Your task to perform on an android device: What's on my calendar today? Image 0: 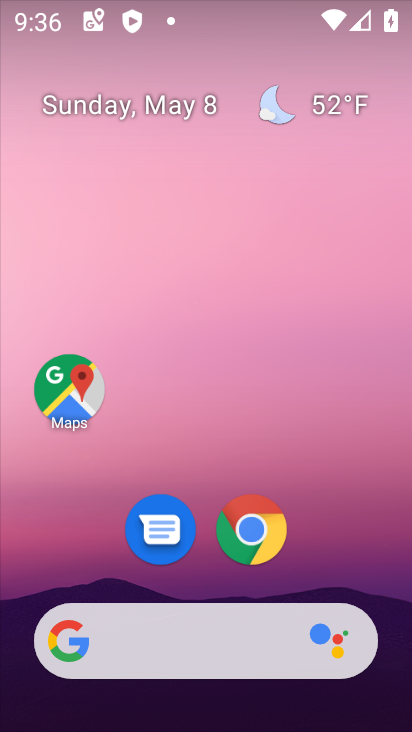
Step 0: drag from (340, 556) to (411, 119)
Your task to perform on an android device: What's on my calendar today? Image 1: 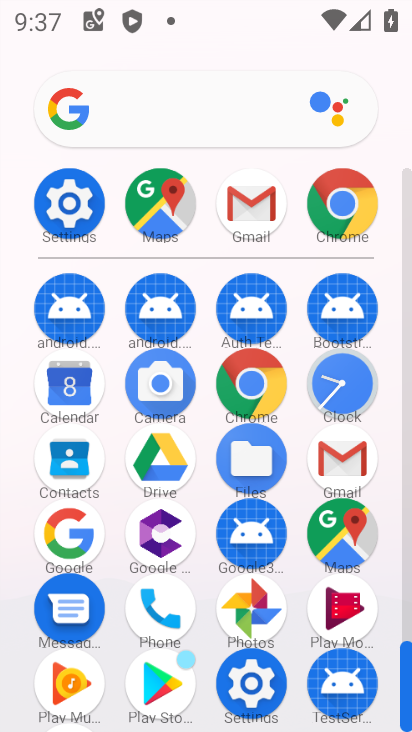
Step 1: drag from (197, 668) to (212, 383)
Your task to perform on an android device: What's on my calendar today? Image 2: 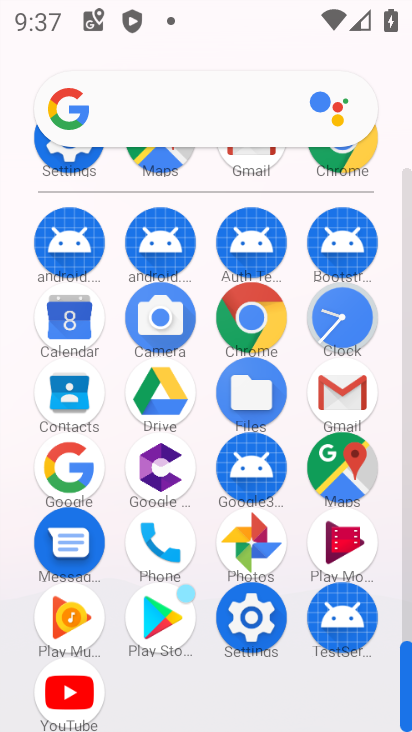
Step 2: click (33, 308)
Your task to perform on an android device: What's on my calendar today? Image 3: 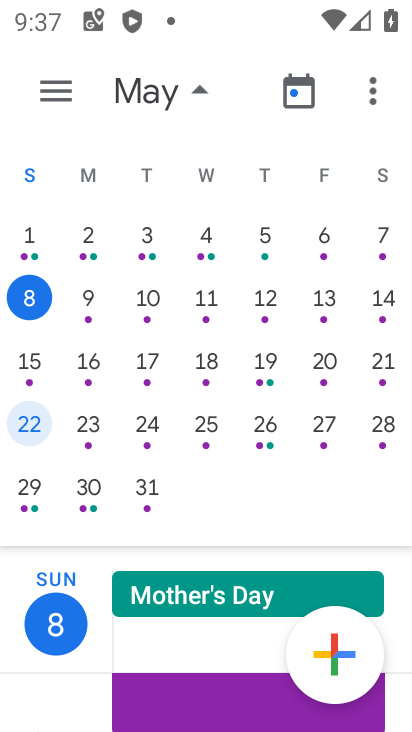
Step 3: click (90, 303)
Your task to perform on an android device: What's on my calendar today? Image 4: 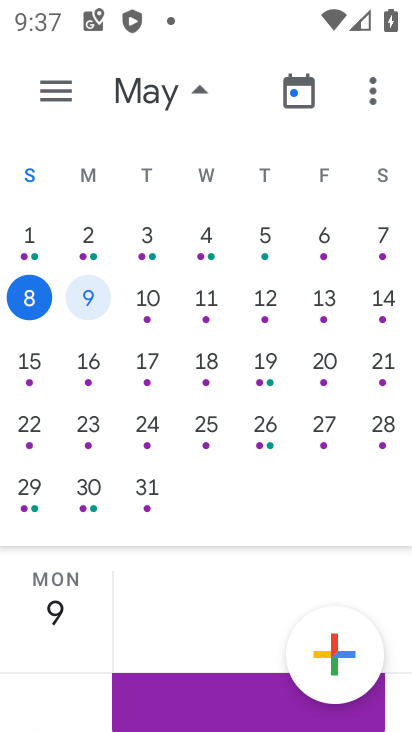
Step 4: task complete